Your task to perform on an android device: Play the last video I watched on Youtube Image 0: 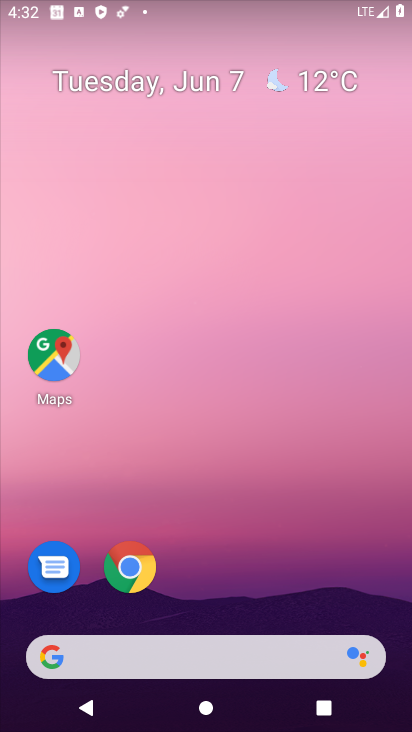
Step 0: drag from (329, 669) to (349, 183)
Your task to perform on an android device: Play the last video I watched on Youtube Image 1: 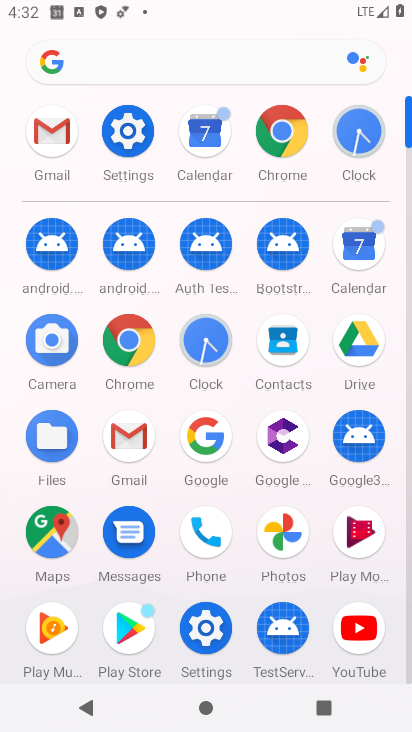
Step 1: click (352, 620)
Your task to perform on an android device: Play the last video I watched on Youtube Image 2: 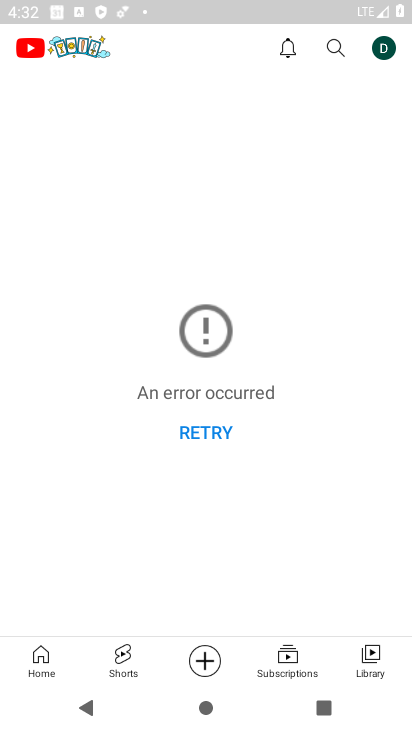
Step 2: click (386, 663)
Your task to perform on an android device: Play the last video I watched on Youtube Image 3: 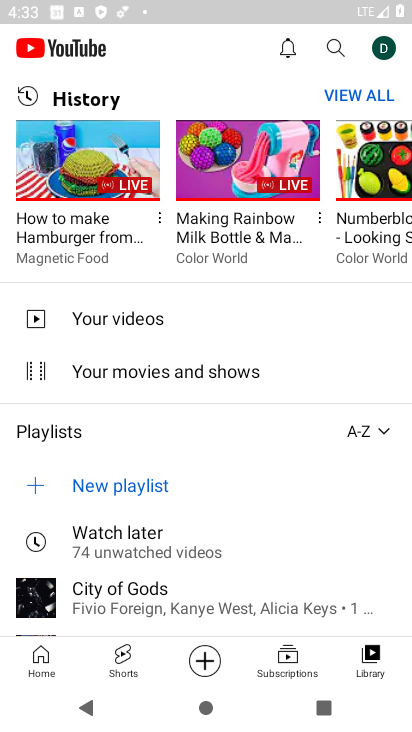
Step 3: click (59, 140)
Your task to perform on an android device: Play the last video I watched on Youtube Image 4: 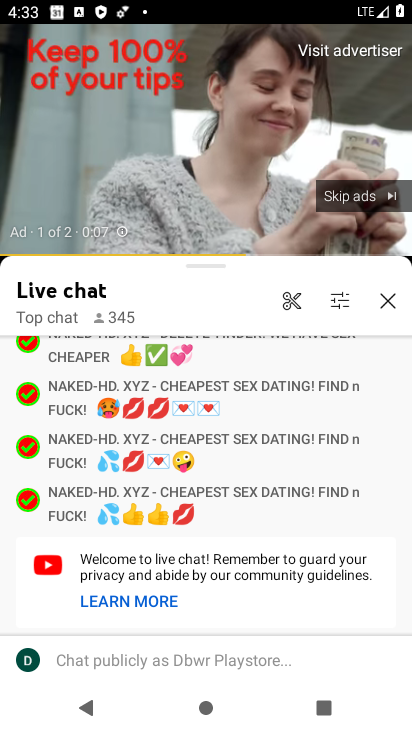
Step 4: click (378, 190)
Your task to perform on an android device: Play the last video I watched on Youtube Image 5: 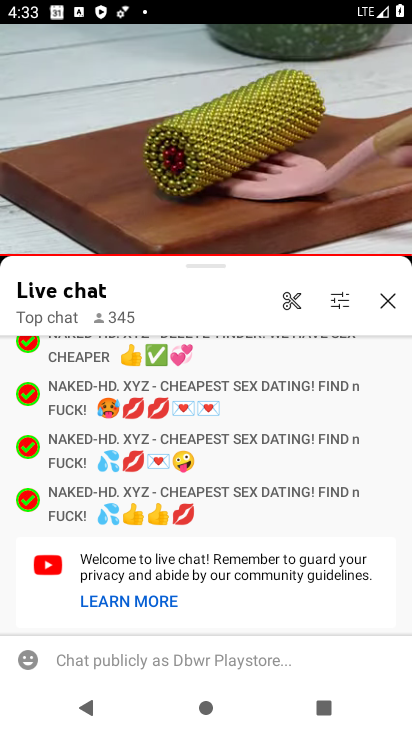
Step 5: task complete